Your task to perform on an android device: open a new tab in the chrome app Image 0: 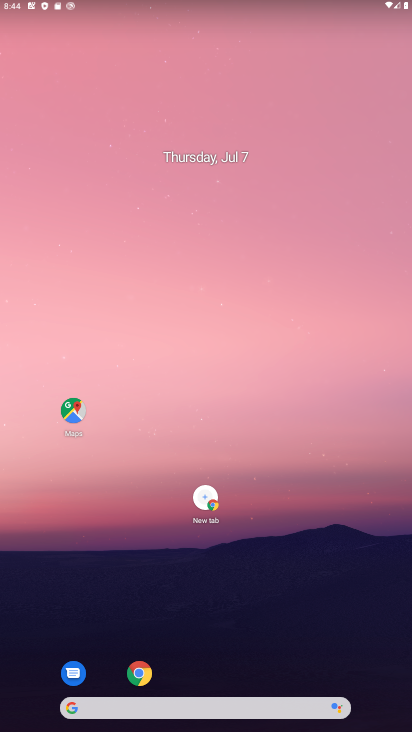
Step 0: drag from (267, 651) to (373, 26)
Your task to perform on an android device: open a new tab in the chrome app Image 1: 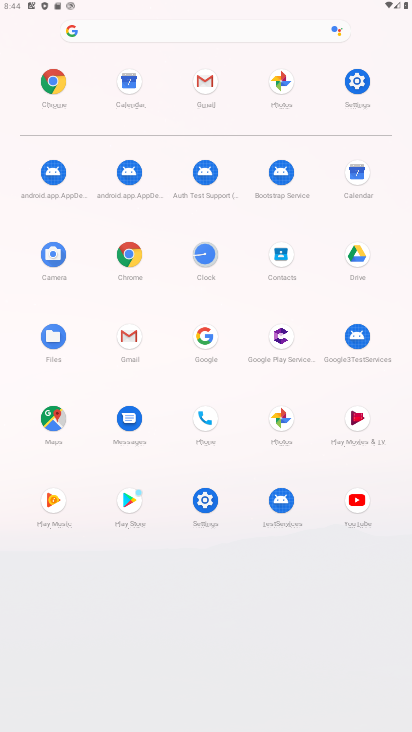
Step 1: click (56, 85)
Your task to perform on an android device: open a new tab in the chrome app Image 2: 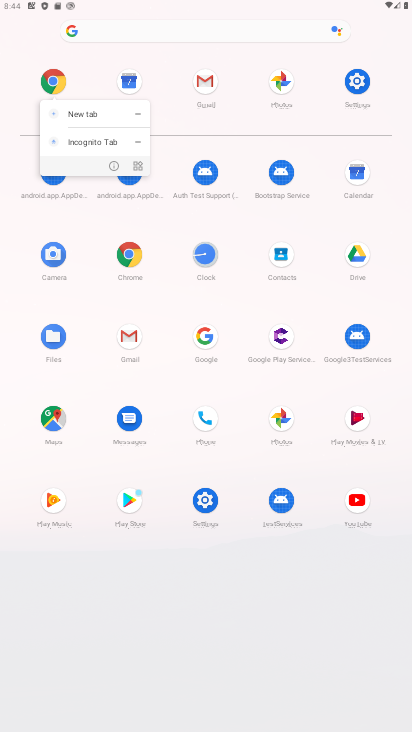
Step 2: click (60, 79)
Your task to perform on an android device: open a new tab in the chrome app Image 3: 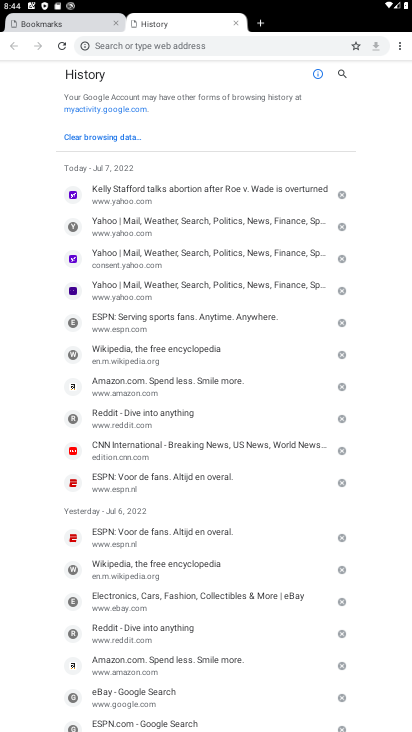
Step 3: click (261, 25)
Your task to perform on an android device: open a new tab in the chrome app Image 4: 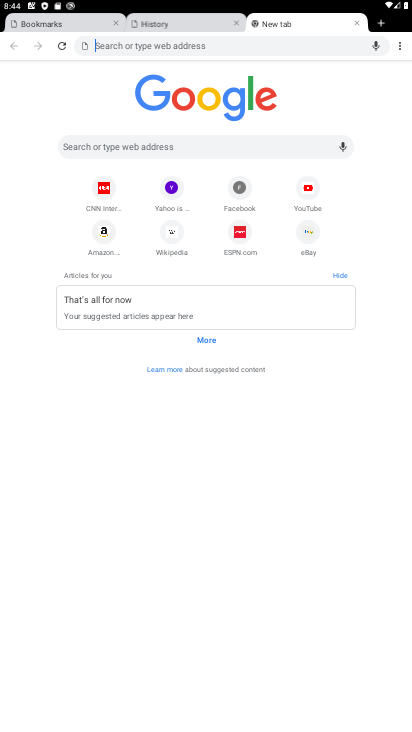
Step 4: task complete